Your task to perform on an android device: When is my next meeting? Image 0: 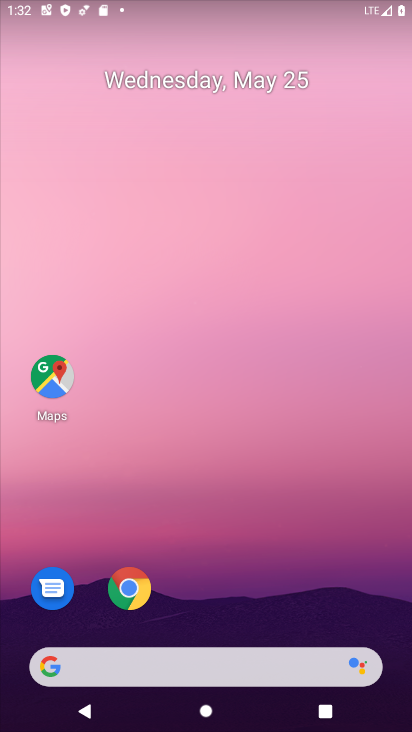
Step 0: drag from (294, 346) to (301, 20)
Your task to perform on an android device: When is my next meeting? Image 1: 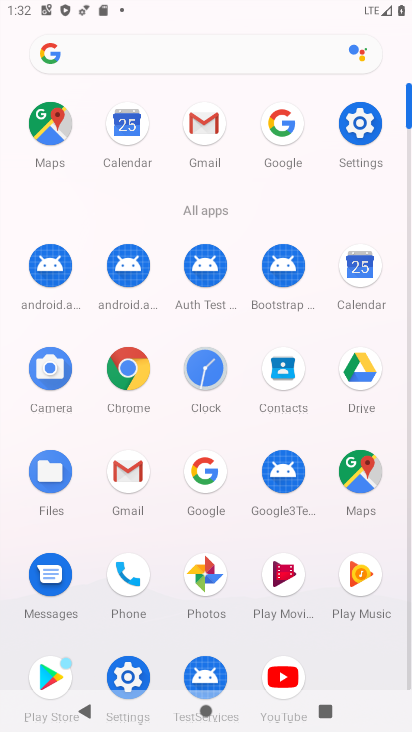
Step 1: click (129, 131)
Your task to perform on an android device: When is my next meeting? Image 2: 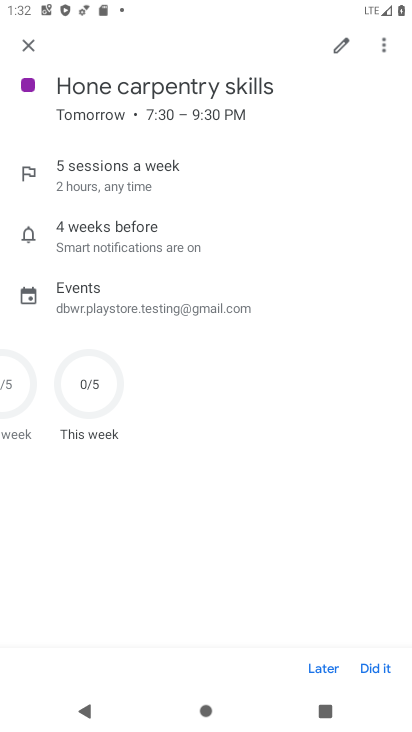
Step 2: click (32, 53)
Your task to perform on an android device: When is my next meeting? Image 3: 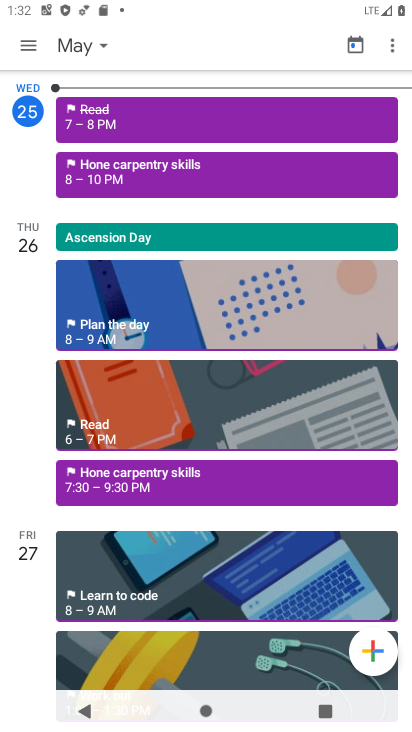
Step 3: drag from (148, 181) to (151, 338)
Your task to perform on an android device: When is my next meeting? Image 4: 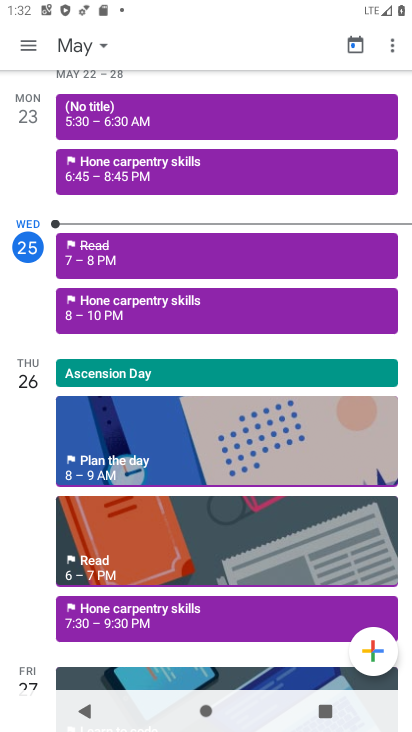
Step 4: click (139, 307)
Your task to perform on an android device: When is my next meeting? Image 5: 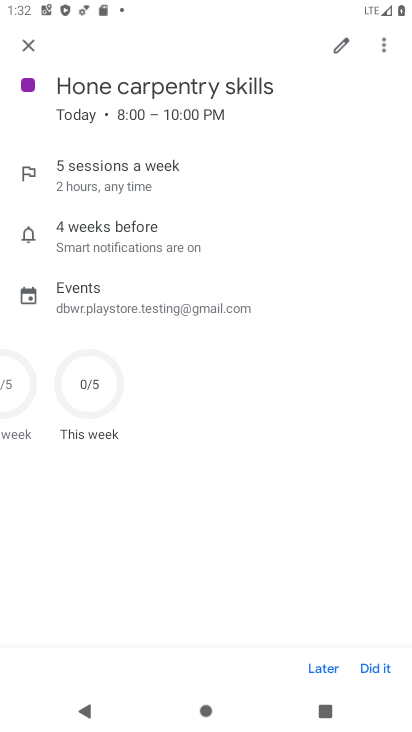
Step 5: task complete